Your task to perform on an android device: turn pop-ups on in chrome Image 0: 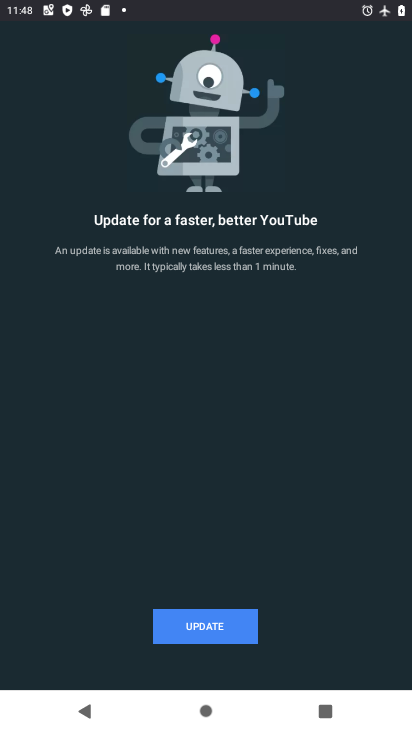
Step 0: press home button
Your task to perform on an android device: turn pop-ups on in chrome Image 1: 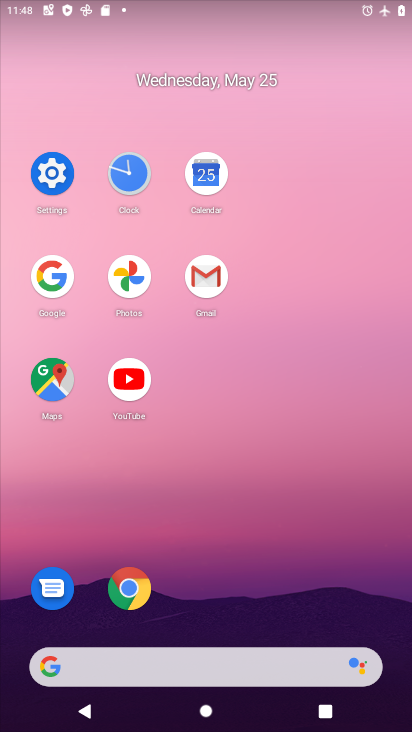
Step 1: click (135, 591)
Your task to perform on an android device: turn pop-ups on in chrome Image 2: 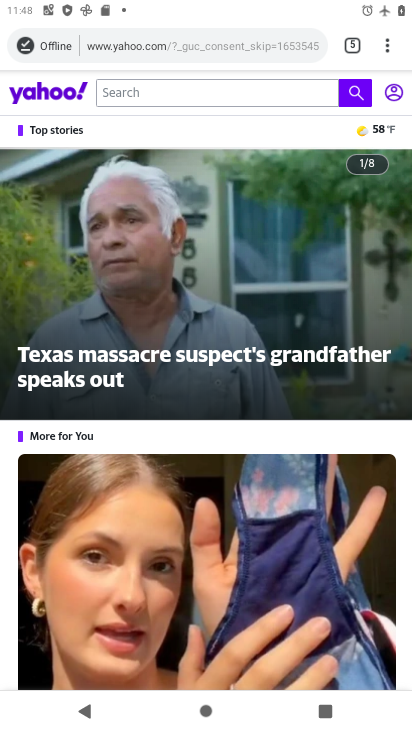
Step 2: click (393, 46)
Your task to perform on an android device: turn pop-ups on in chrome Image 3: 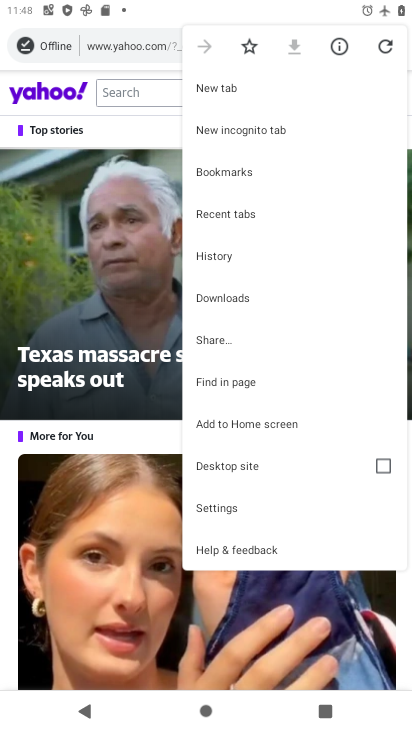
Step 3: click (244, 501)
Your task to perform on an android device: turn pop-ups on in chrome Image 4: 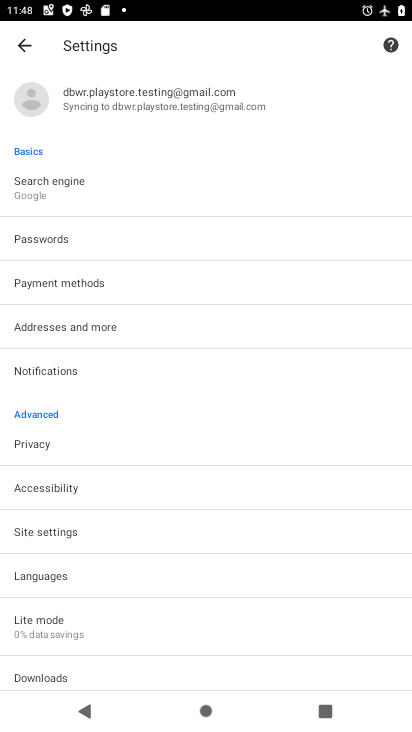
Step 4: click (101, 525)
Your task to perform on an android device: turn pop-ups on in chrome Image 5: 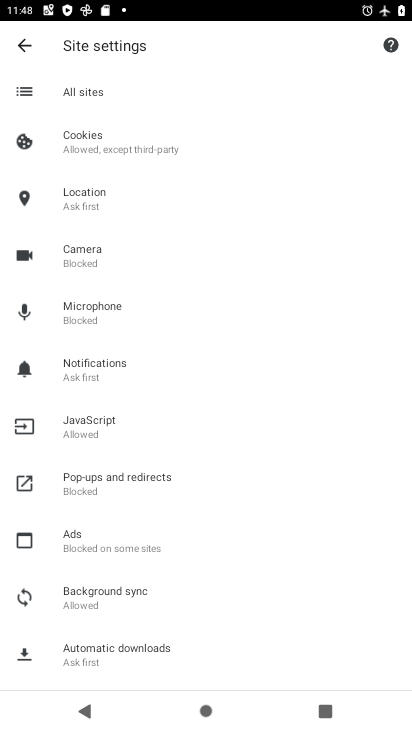
Step 5: click (163, 479)
Your task to perform on an android device: turn pop-ups on in chrome Image 6: 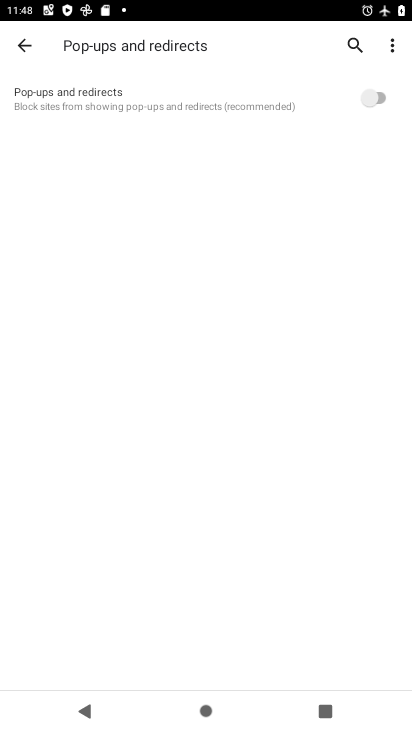
Step 6: click (364, 100)
Your task to perform on an android device: turn pop-ups on in chrome Image 7: 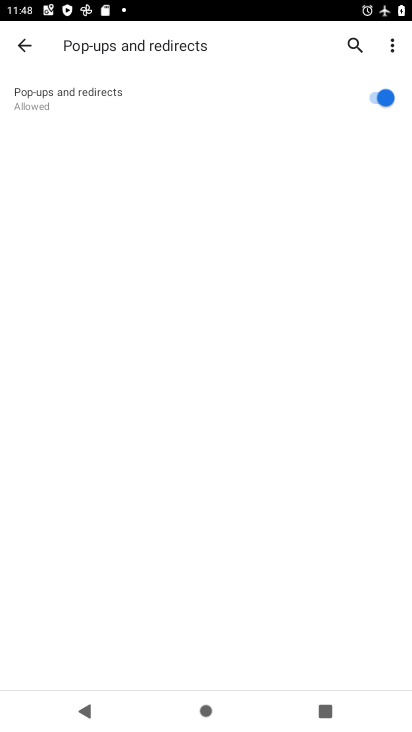
Step 7: task complete